Your task to perform on an android device: turn on data saver in the chrome app Image 0: 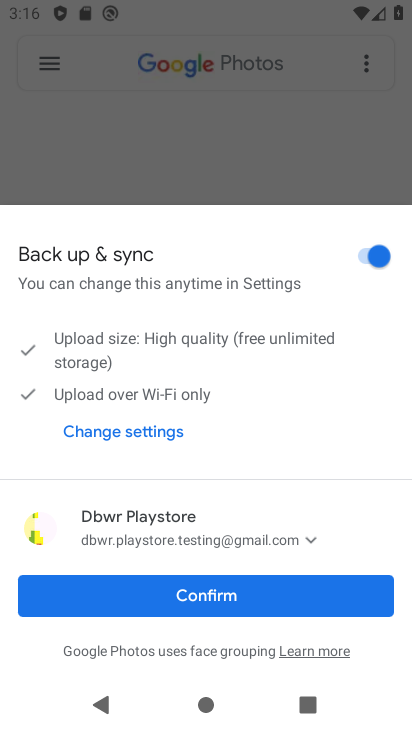
Step 0: press home button
Your task to perform on an android device: turn on data saver in the chrome app Image 1: 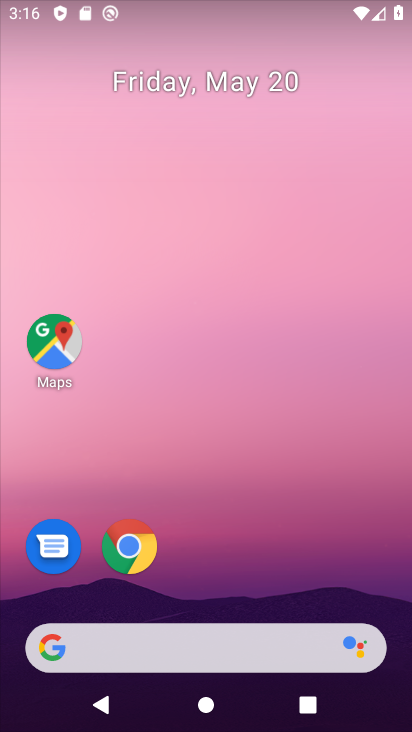
Step 1: click (125, 548)
Your task to perform on an android device: turn on data saver in the chrome app Image 2: 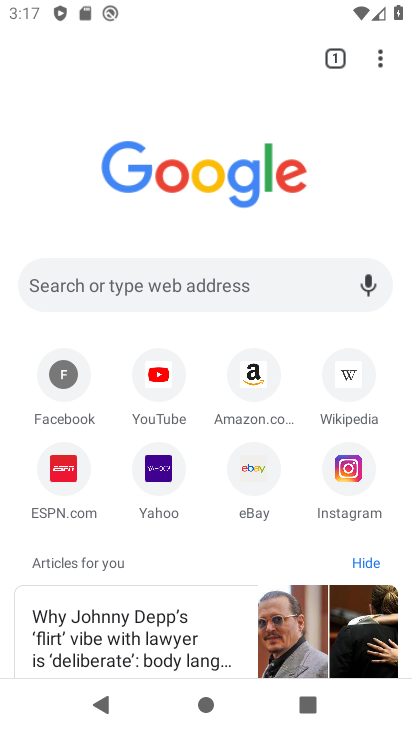
Step 2: click (380, 58)
Your task to perform on an android device: turn on data saver in the chrome app Image 3: 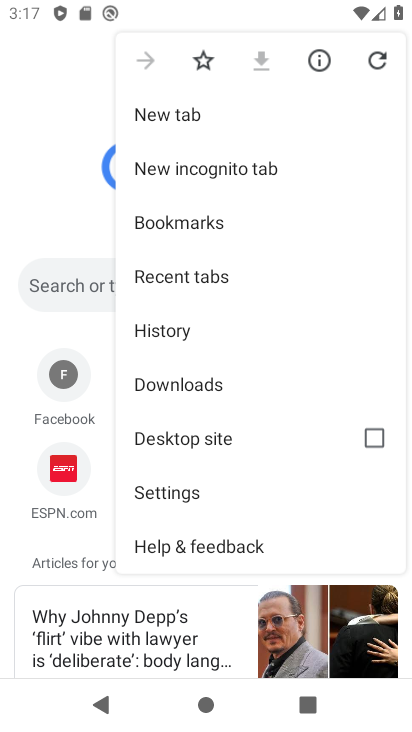
Step 3: click (177, 495)
Your task to perform on an android device: turn on data saver in the chrome app Image 4: 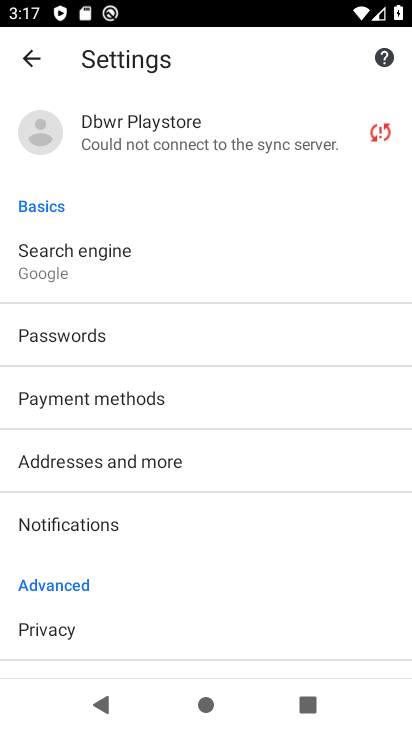
Step 4: drag from (103, 599) to (156, 429)
Your task to perform on an android device: turn on data saver in the chrome app Image 5: 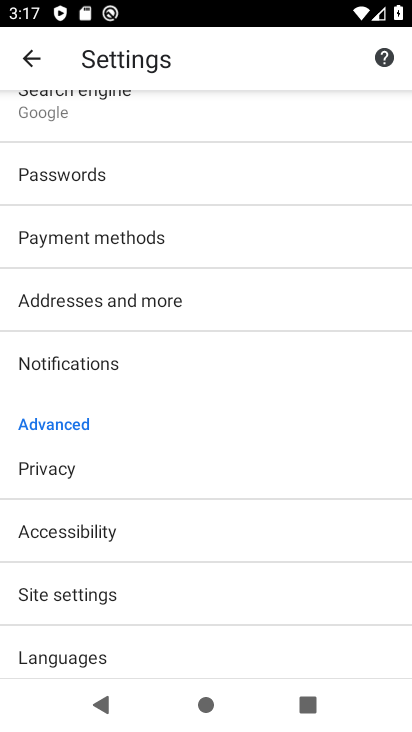
Step 5: drag from (162, 580) to (234, 482)
Your task to perform on an android device: turn on data saver in the chrome app Image 6: 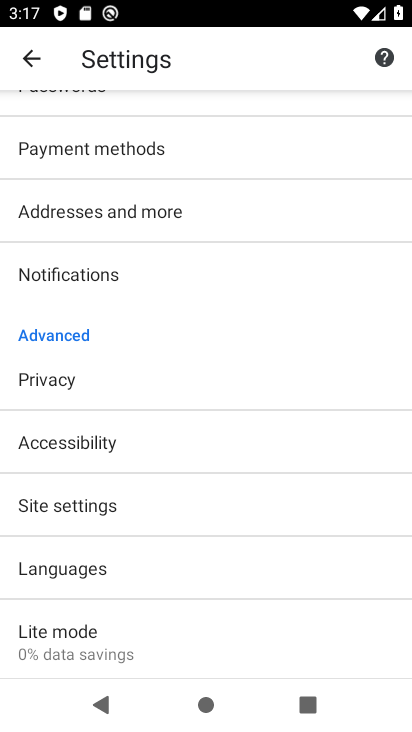
Step 6: click (71, 631)
Your task to perform on an android device: turn on data saver in the chrome app Image 7: 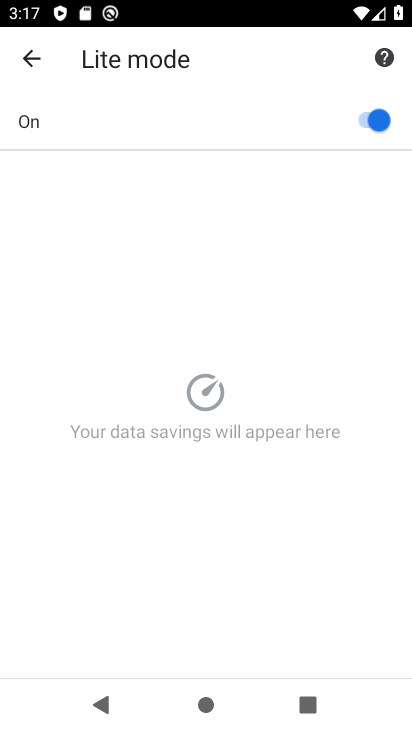
Step 7: task complete